Your task to perform on an android device: Go to display settings Image 0: 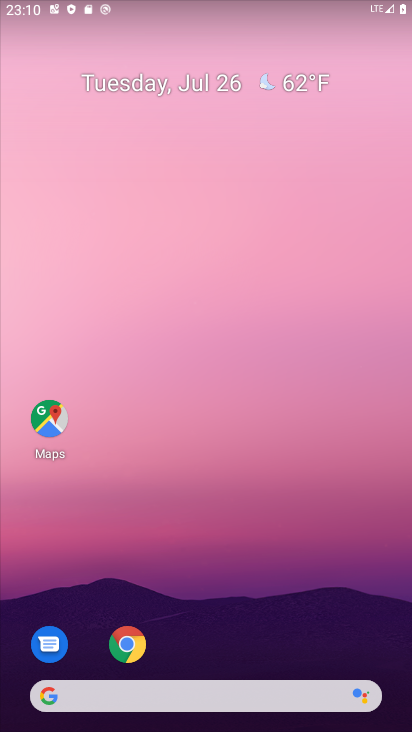
Step 0: drag from (294, 654) to (277, 1)
Your task to perform on an android device: Go to display settings Image 1: 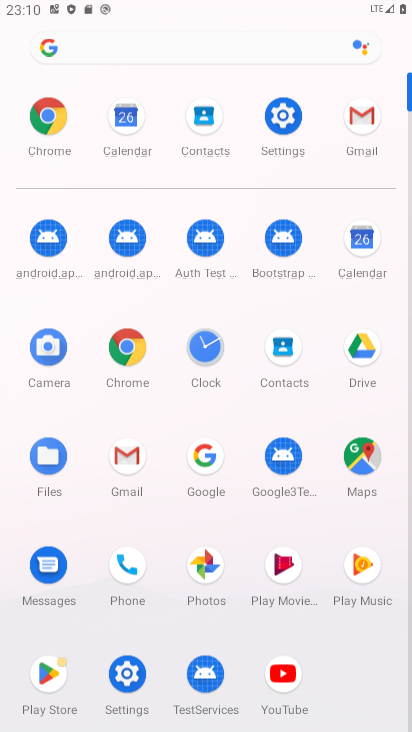
Step 1: click (287, 123)
Your task to perform on an android device: Go to display settings Image 2: 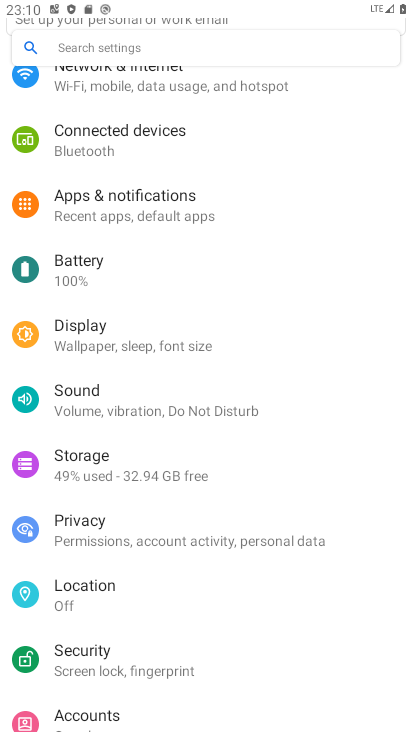
Step 2: click (70, 337)
Your task to perform on an android device: Go to display settings Image 3: 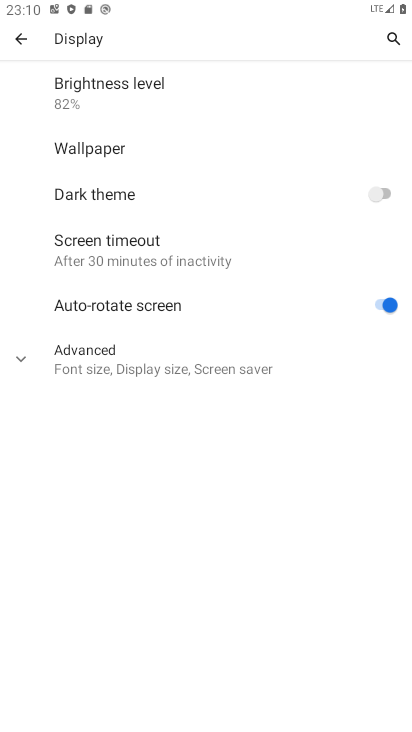
Step 3: task complete